Your task to perform on an android device: toggle improve location accuracy Image 0: 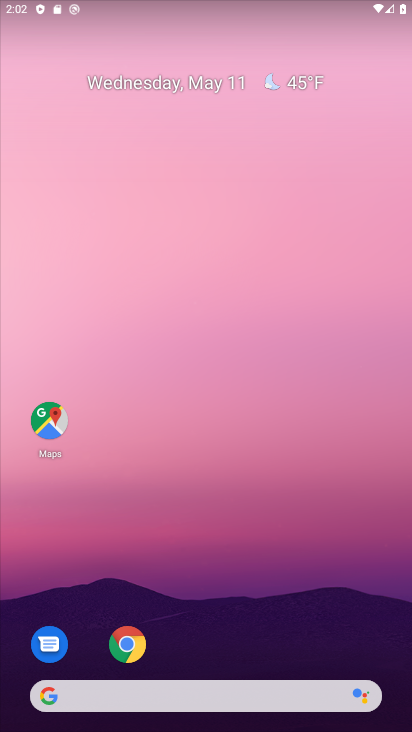
Step 0: drag from (238, 592) to (312, 54)
Your task to perform on an android device: toggle improve location accuracy Image 1: 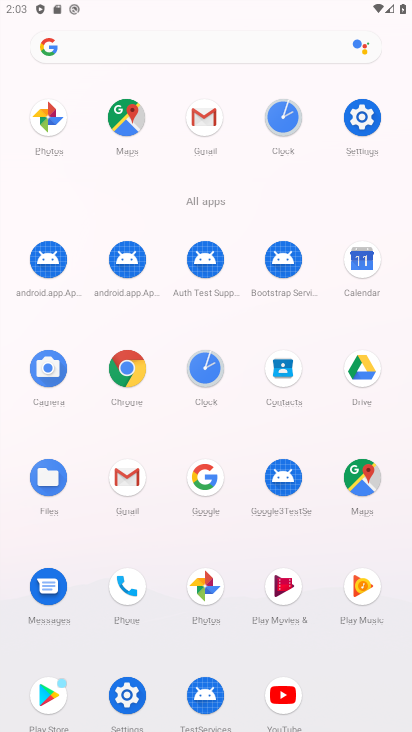
Step 1: click (354, 119)
Your task to perform on an android device: toggle improve location accuracy Image 2: 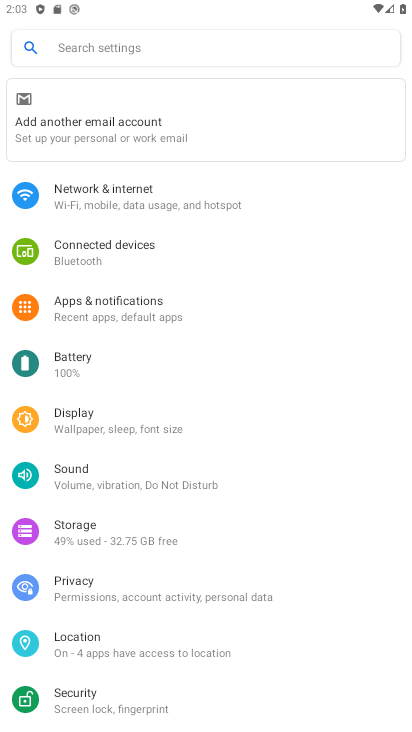
Step 2: click (81, 646)
Your task to perform on an android device: toggle improve location accuracy Image 3: 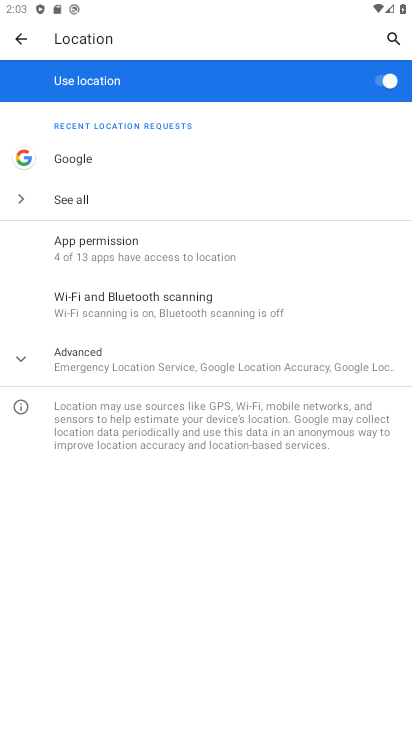
Step 3: click (145, 363)
Your task to perform on an android device: toggle improve location accuracy Image 4: 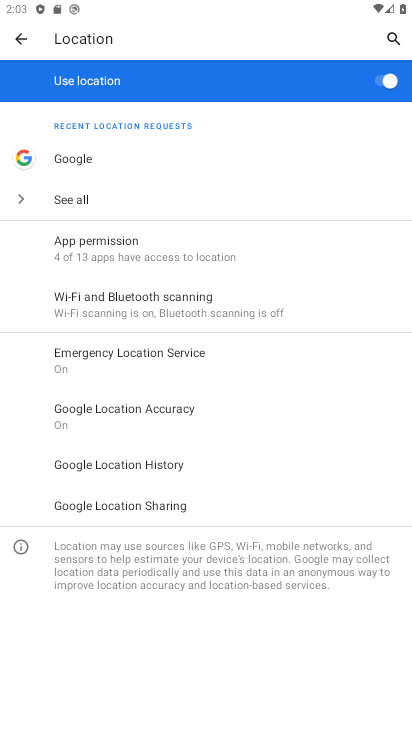
Step 4: click (93, 410)
Your task to perform on an android device: toggle improve location accuracy Image 5: 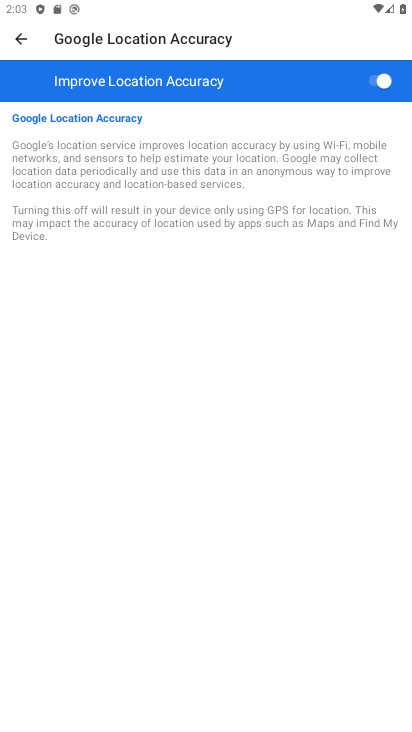
Step 5: click (377, 75)
Your task to perform on an android device: toggle improve location accuracy Image 6: 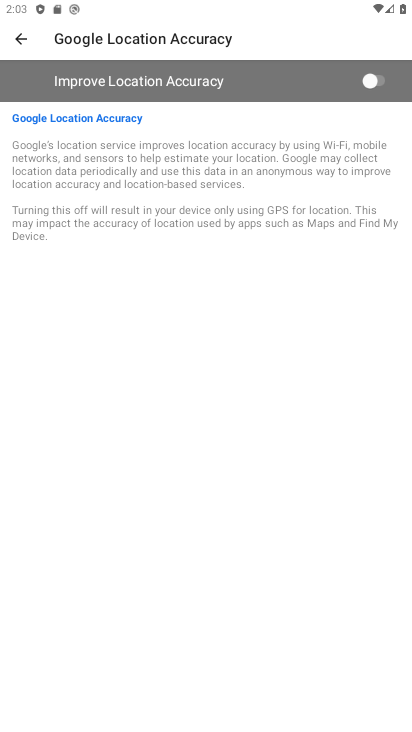
Step 6: task complete